Your task to perform on an android device: open a new tab in the chrome app Image 0: 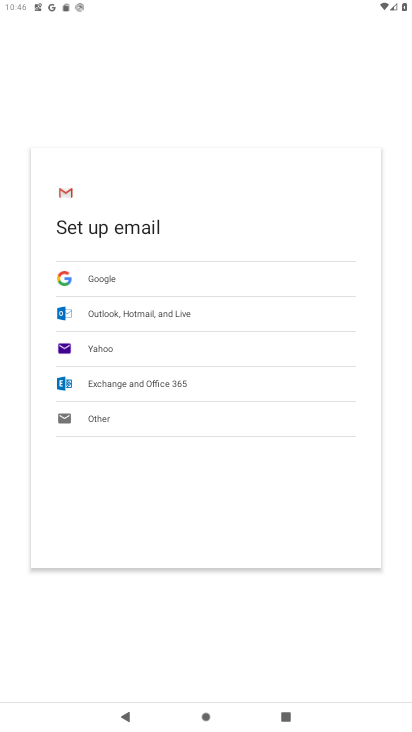
Step 0: press home button
Your task to perform on an android device: open a new tab in the chrome app Image 1: 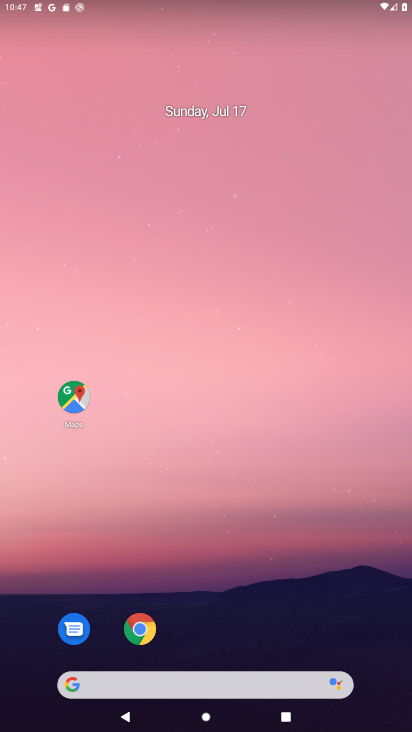
Step 1: click (141, 631)
Your task to perform on an android device: open a new tab in the chrome app Image 2: 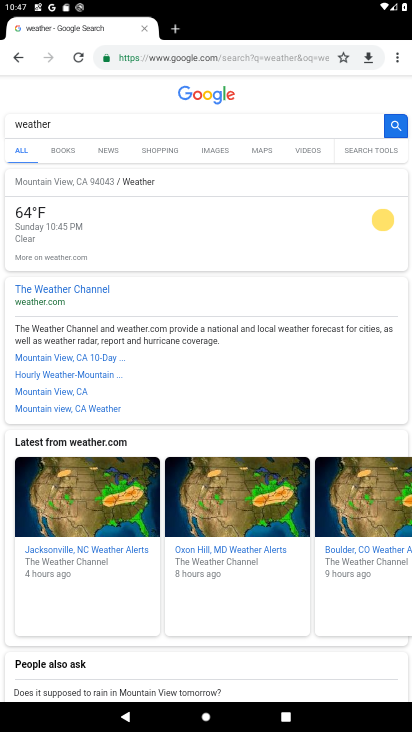
Step 2: click (397, 54)
Your task to perform on an android device: open a new tab in the chrome app Image 3: 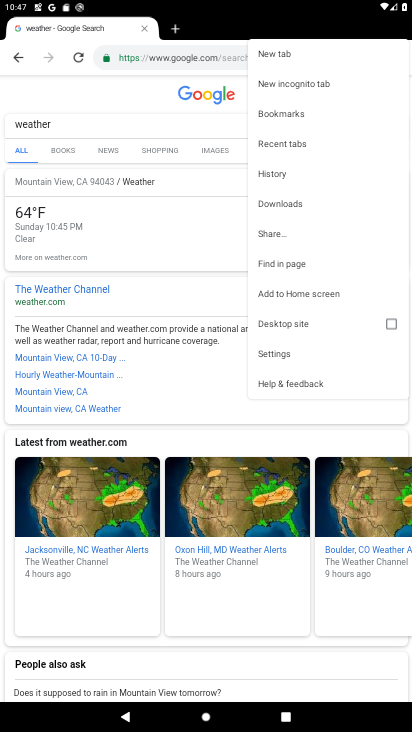
Step 3: click (290, 56)
Your task to perform on an android device: open a new tab in the chrome app Image 4: 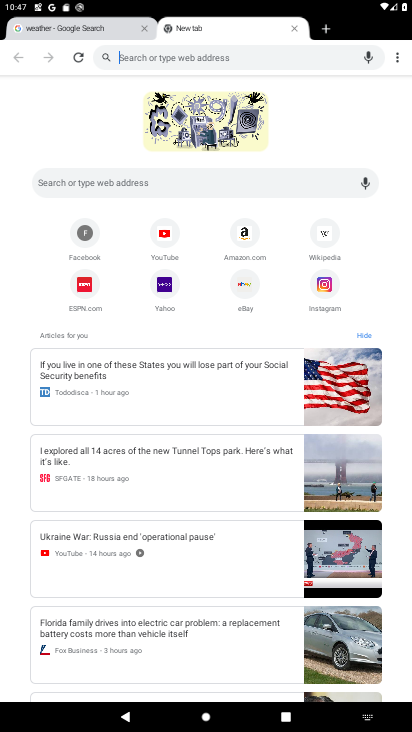
Step 4: task complete